Your task to perform on an android device: Open the web browser Image 0: 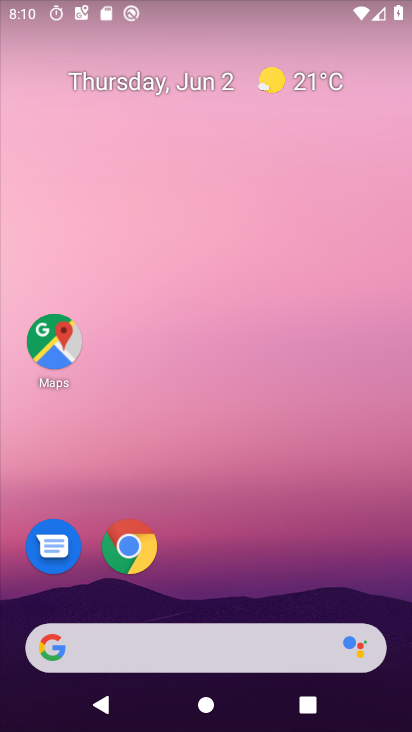
Step 0: drag from (259, 540) to (301, 199)
Your task to perform on an android device: Open the web browser Image 1: 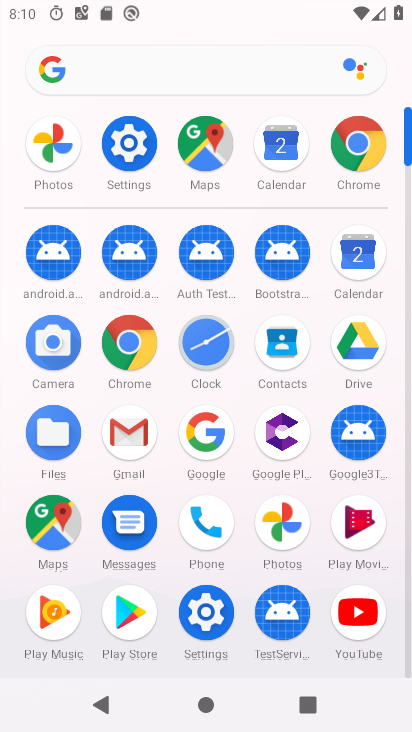
Step 1: click (134, 347)
Your task to perform on an android device: Open the web browser Image 2: 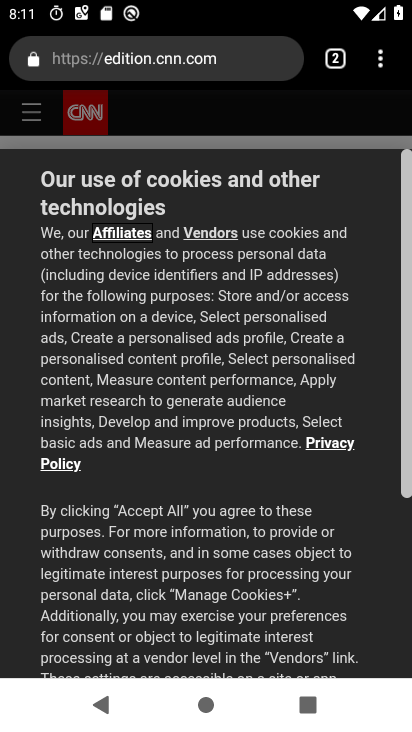
Step 2: task complete